Your task to perform on an android device: turn on priority inbox in the gmail app Image 0: 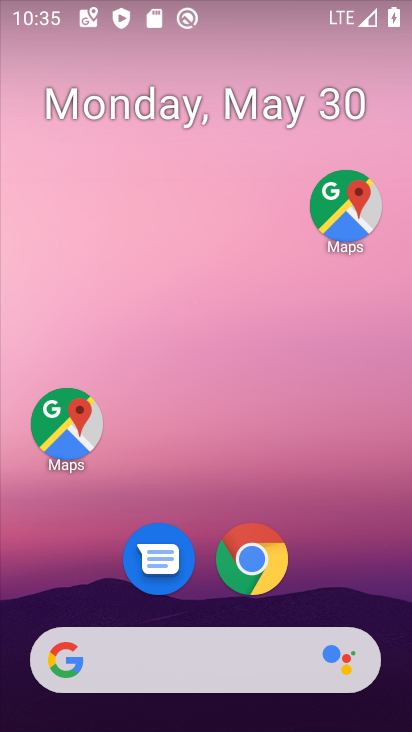
Step 0: drag from (306, 536) to (312, 186)
Your task to perform on an android device: turn on priority inbox in the gmail app Image 1: 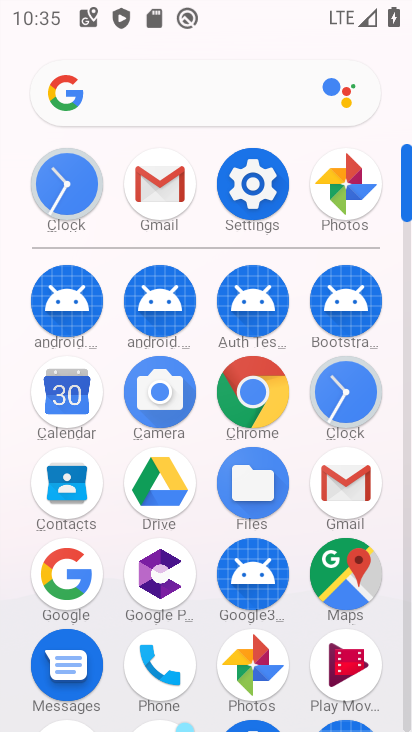
Step 1: click (158, 200)
Your task to perform on an android device: turn on priority inbox in the gmail app Image 2: 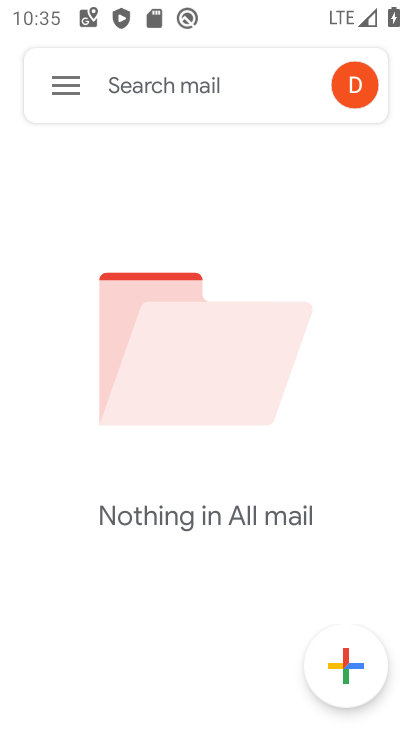
Step 2: click (64, 85)
Your task to perform on an android device: turn on priority inbox in the gmail app Image 3: 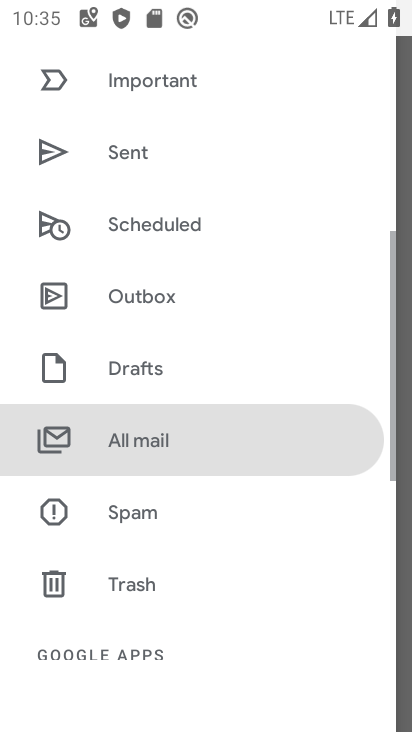
Step 3: drag from (139, 565) to (231, 90)
Your task to perform on an android device: turn on priority inbox in the gmail app Image 4: 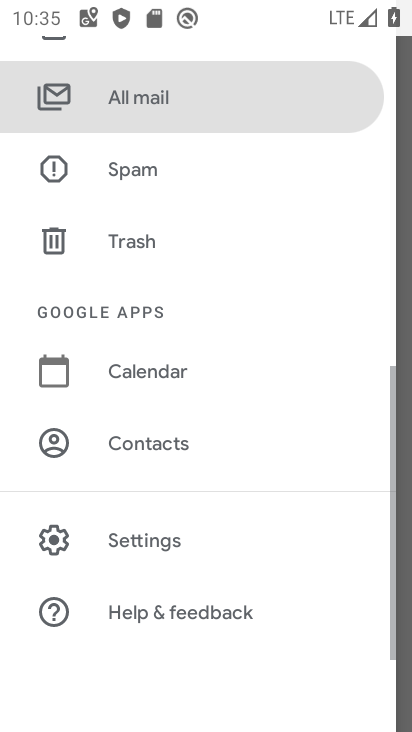
Step 4: click (163, 535)
Your task to perform on an android device: turn on priority inbox in the gmail app Image 5: 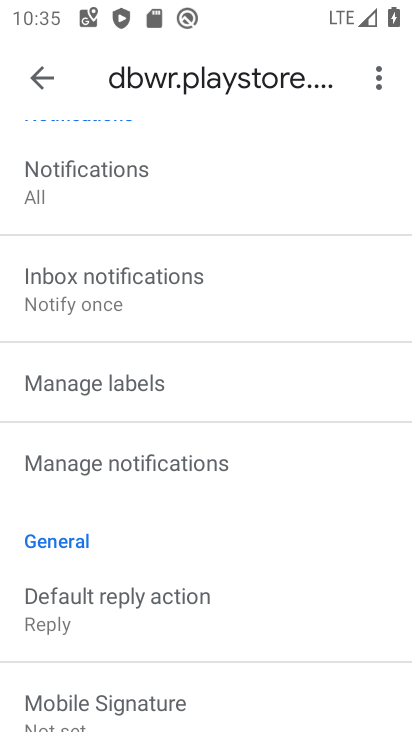
Step 5: drag from (152, 217) to (198, 610)
Your task to perform on an android device: turn on priority inbox in the gmail app Image 6: 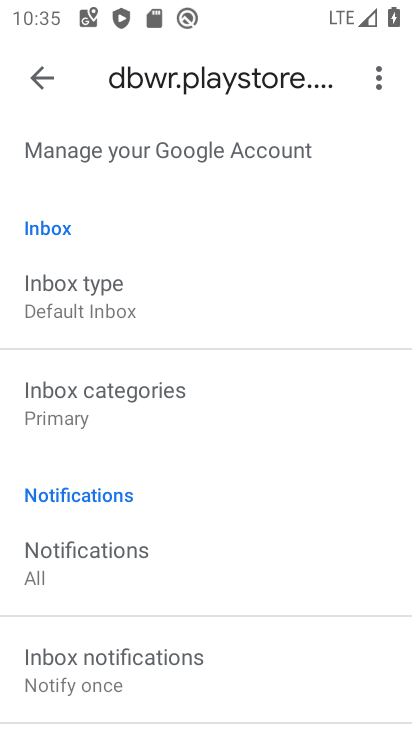
Step 6: click (113, 306)
Your task to perform on an android device: turn on priority inbox in the gmail app Image 7: 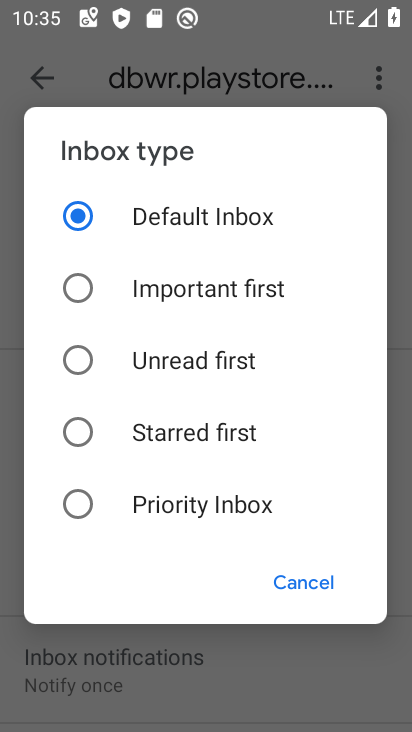
Step 7: task complete